Your task to perform on an android device: uninstall "Walmart Shopping & Grocery" Image 0: 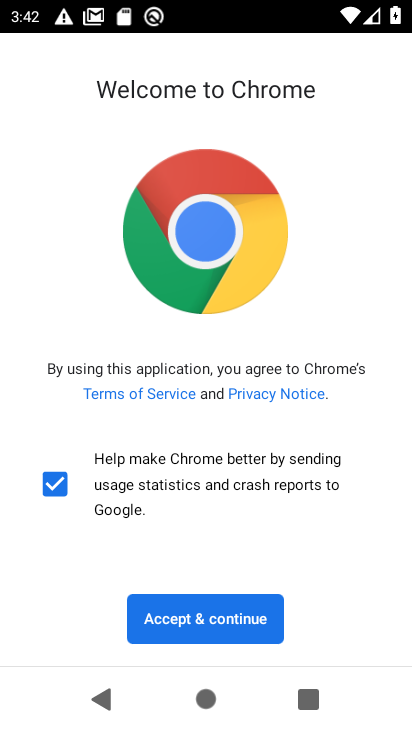
Step 0: press home button
Your task to perform on an android device: uninstall "Walmart Shopping & Grocery" Image 1: 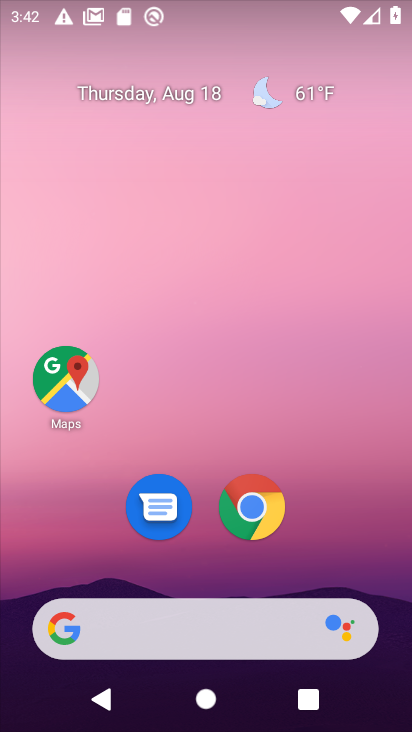
Step 1: drag from (237, 547) to (244, 1)
Your task to perform on an android device: uninstall "Walmart Shopping & Grocery" Image 2: 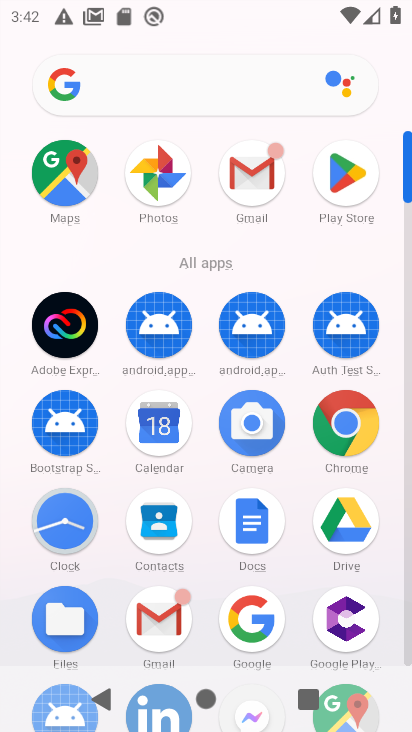
Step 2: click (347, 170)
Your task to perform on an android device: uninstall "Walmart Shopping & Grocery" Image 3: 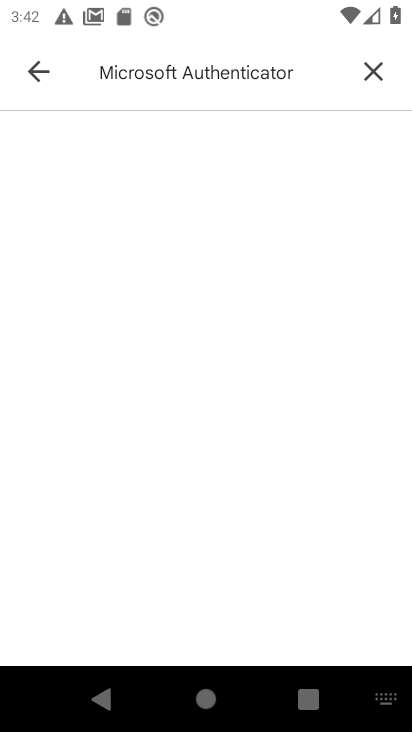
Step 3: click (371, 71)
Your task to perform on an android device: uninstall "Walmart Shopping & Grocery" Image 4: 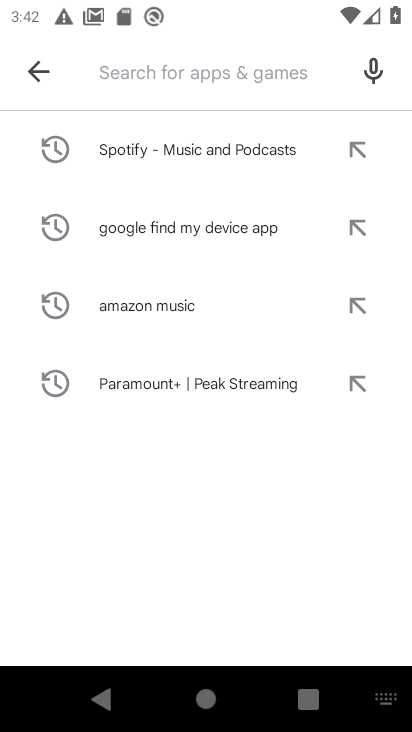
Step 4: click (232, 63)
Your task to perform on an android device: uninstall "Walmart Shopping & Grocery" Image 5: 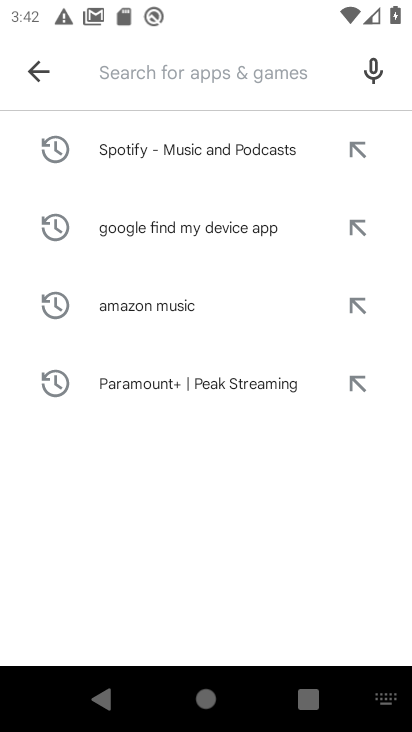
Step 5: type "Walmart Shopping & Grocery"
Your task to perform on an android device: uninstall "Walmart Shopping & Grocery" Image 6: 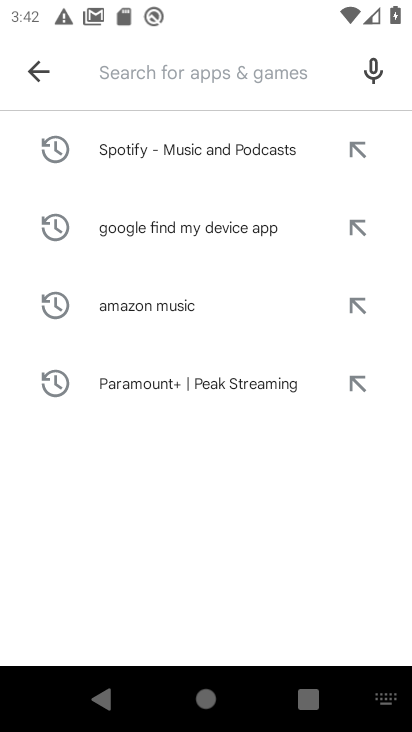
Step 6: click (210, 517)
Your task to perform on an android device: uninstall "Walmart Shopping & Grocery" Image 7: 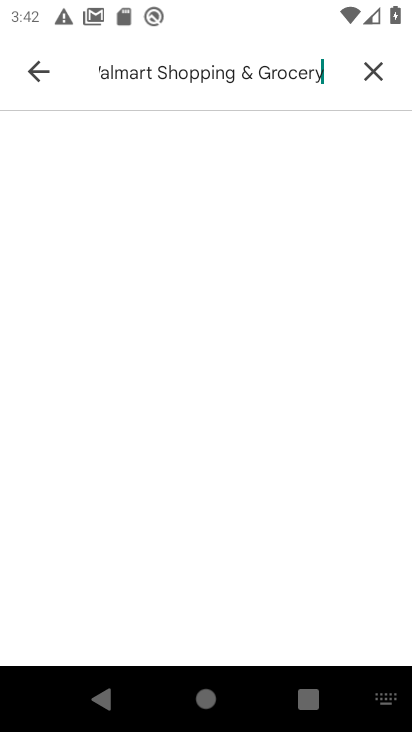
Step 7: click (371, 68)
Your task to perform on an android device: uninstall "Walmart Shopping & Grocery" Image 8: 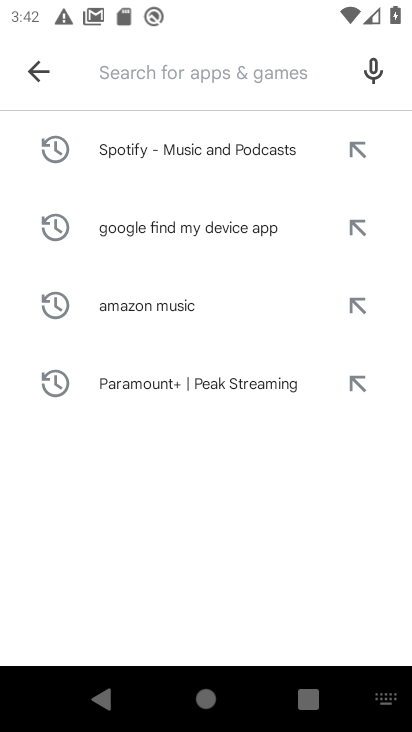
Step 8: type "walmart"
Your task to perform on an android device: uninstall "Walmart Shopping & Grocery" Image 9: 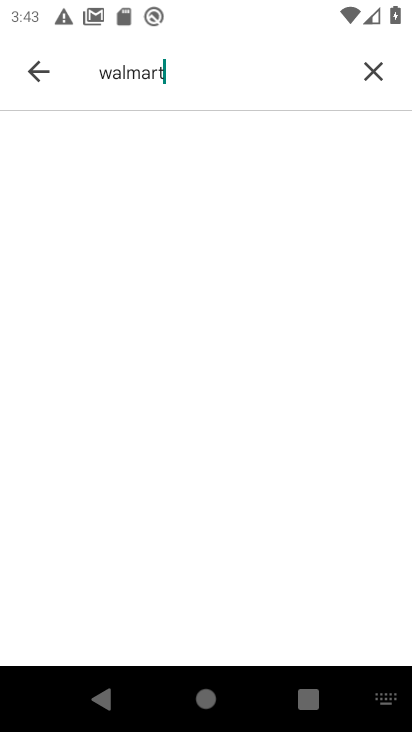
Step 9: task complete